Your task to perform on an android device: turn on data saver in the chrome app Image 0: 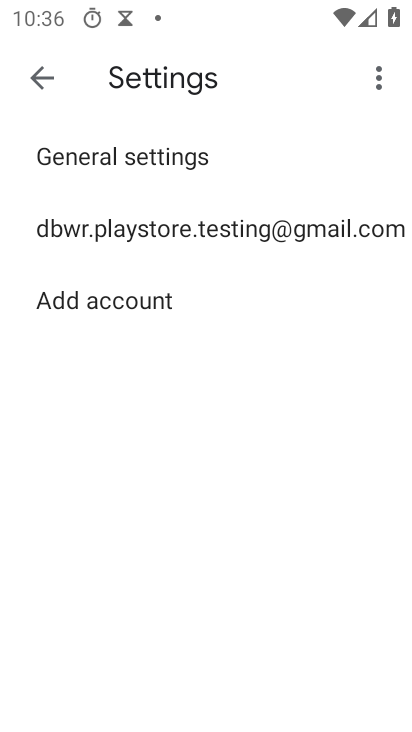
Step 0: press home button
Your task to perform on an android device: turn on data saver in the chrome app Image 1: 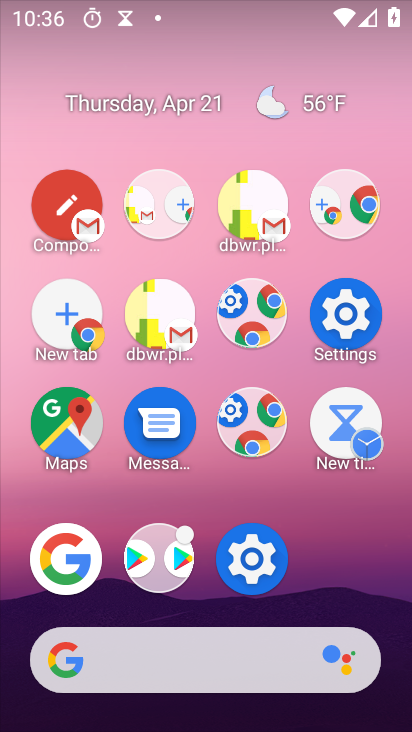
Step 1: drag from (315, 504) to (214, 132)
Your task to perform on an android device: turn on data saver in the chrome app Image 2: 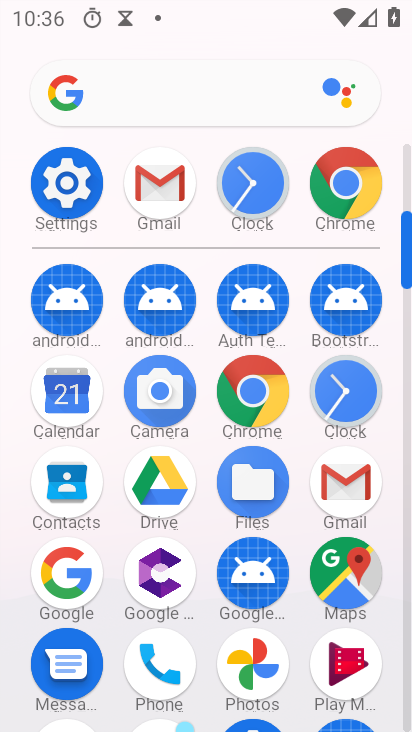
Step 2: click (255, 396)
Your task to perform on an android device: turn on data saver in the chrome app Image 3: 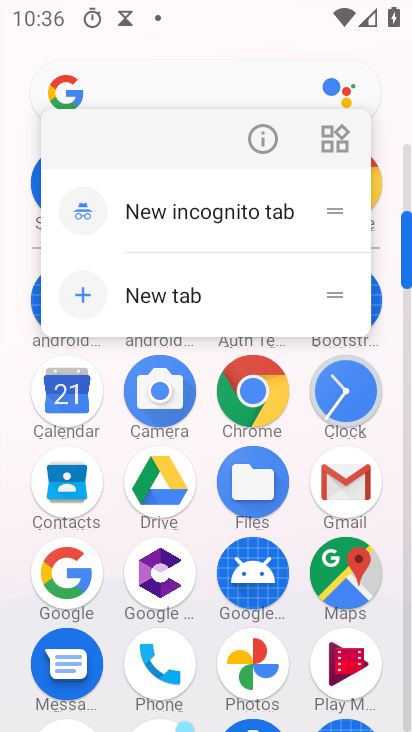
Step 3: click (263, 390)
Your task to perform on an android device: turn on data saver in the chrome app Image 4: 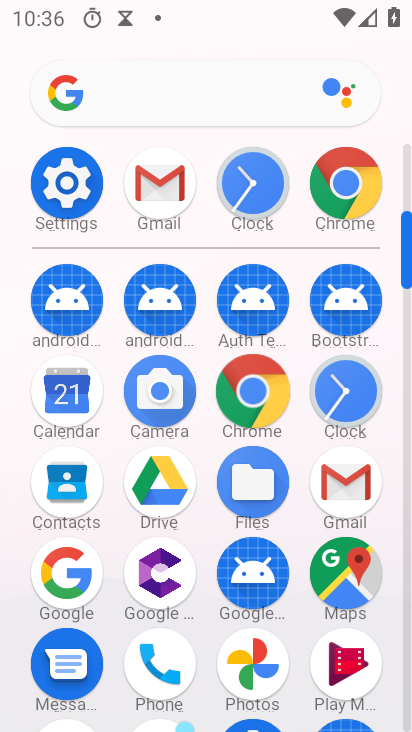
Step 4: click (271, 403)
Your task to perform on an android device: turn on data saver in the chrome app Image 5: 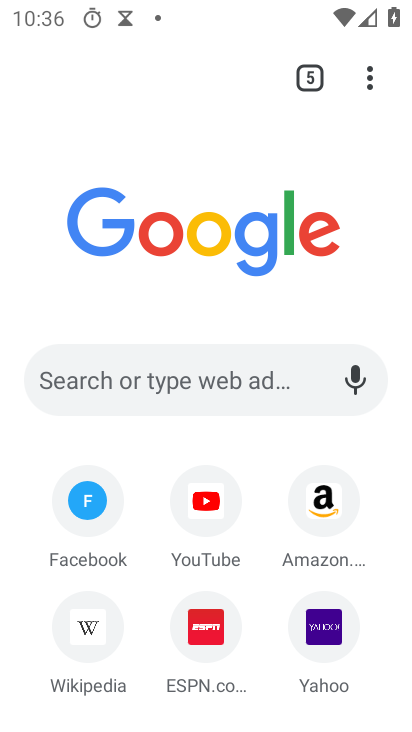
Step 5: drag from (361, 79) to (117, 620)
Your task to perform on an android device: turn on data saver in the chrome app Image 6: 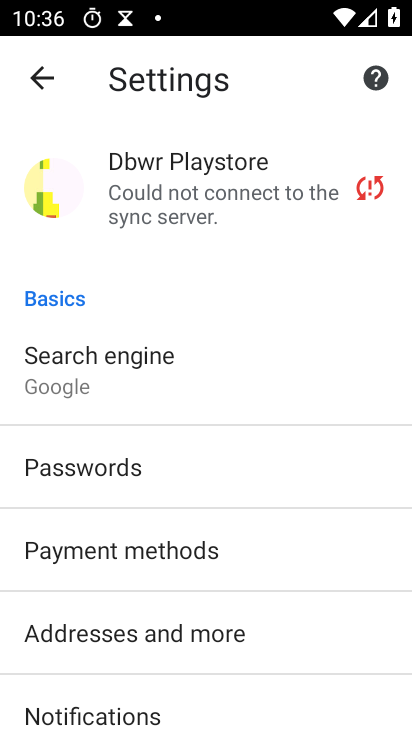
Step 6: drag from (206, 579) to (168, 275)
Your task to perform on an android device: turn on data saver in the chrome app Image 7: 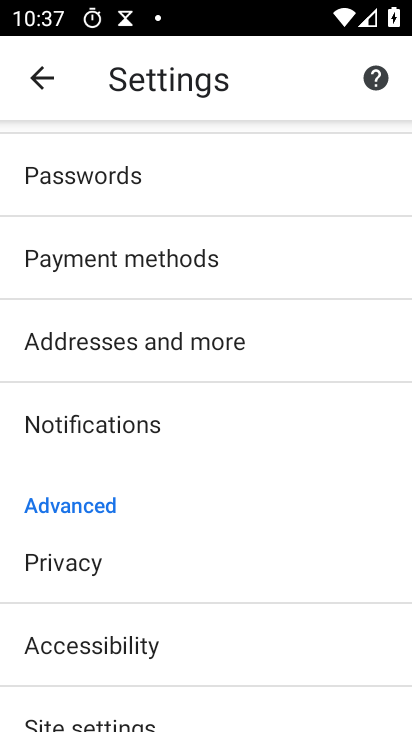
Step 7: drag from (137, 468) to (147, 319)
Your task to perform on an android device: turn on data saver in the chrome app Image 8: 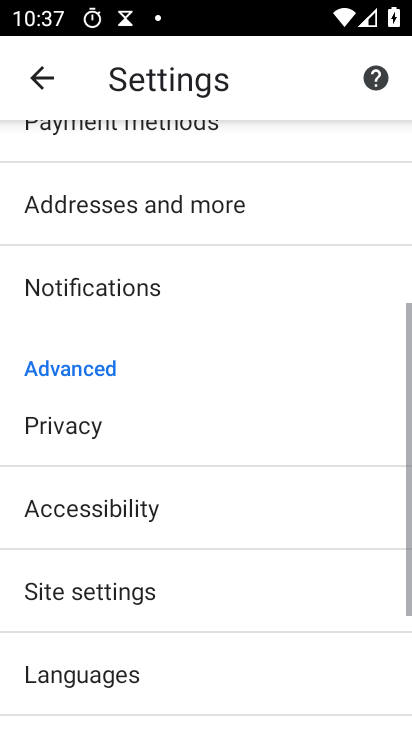
Step 8: drag from (175, 493) to (173, 298)
Your task to perform on an android device: turn on data saver in the chrome app Image 9: 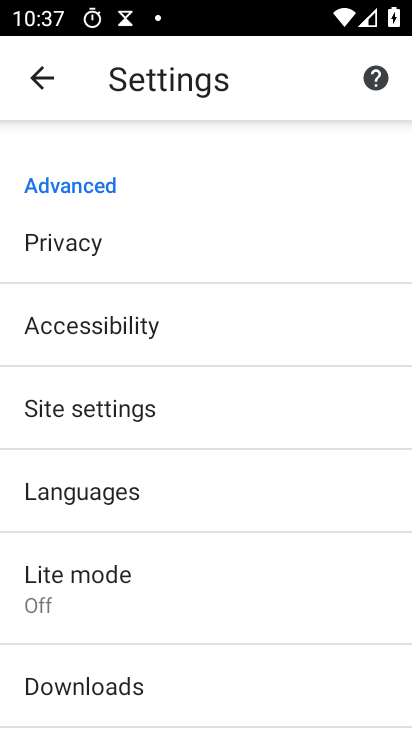
Step 9: click (74, 405)
Your task to perform on an android device: turn on data saver in the chrome app Image 10: 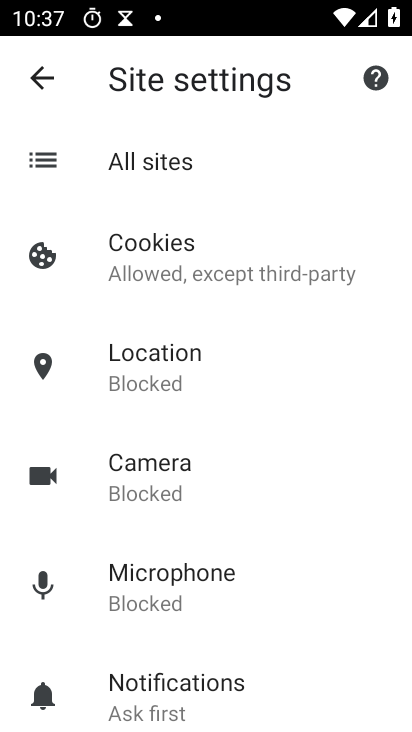
Step 10: drag from (228, 507) to (228, 210)
Your task to perform on an android device: turn on data saver in the chrome app Image 11: 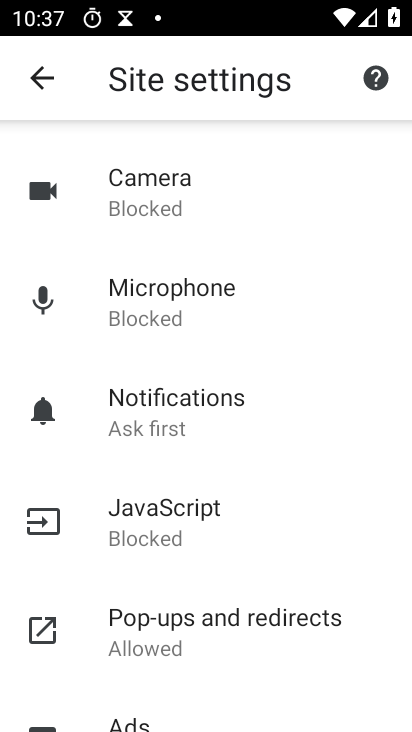
Step 11: click (35, 75)
Your task to perform on an android device: turn on data saver in the chrome app Image 12: 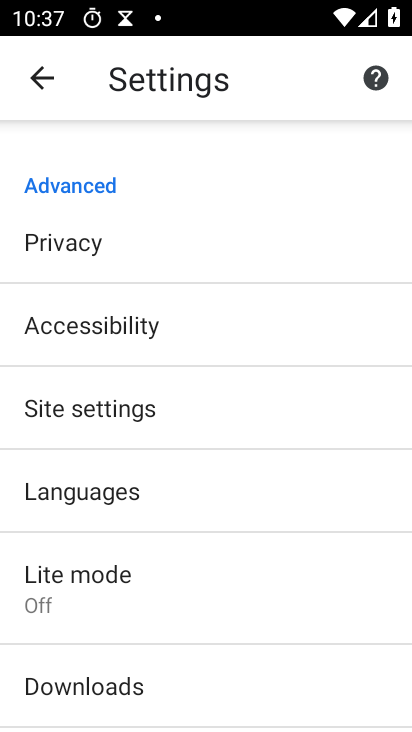
Step 12: click (79, 579)
Your task to perform on an android device: turn on data saver in the chrome app Image 13: 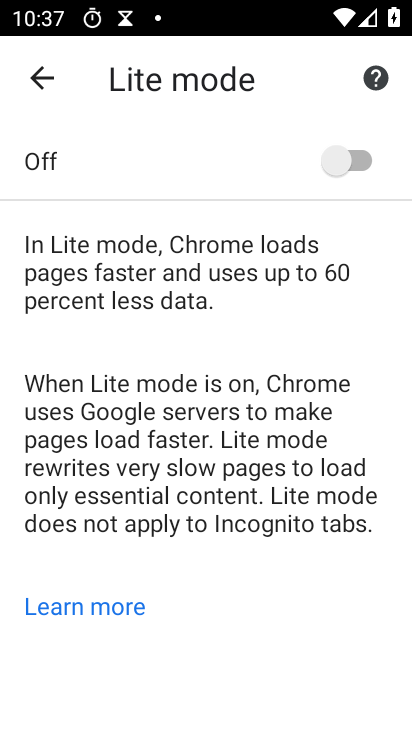
Step 13: click (338, 150)
Your task to perform on an android device: turn on data saver in the chrome app Image 14: 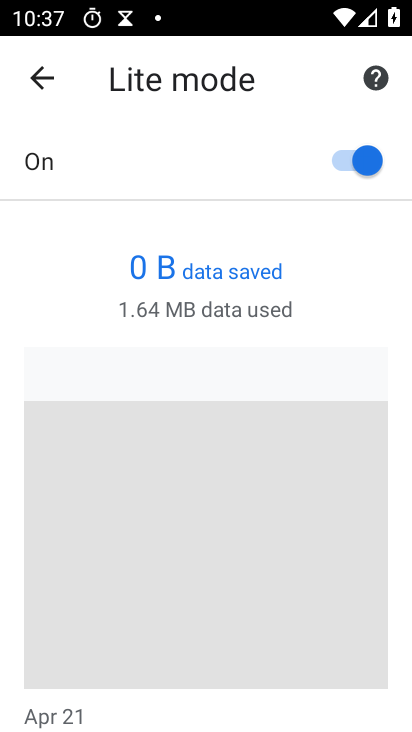
Step 14: task complete